Your task to perform on an android device: Go to battery settings Image 0: 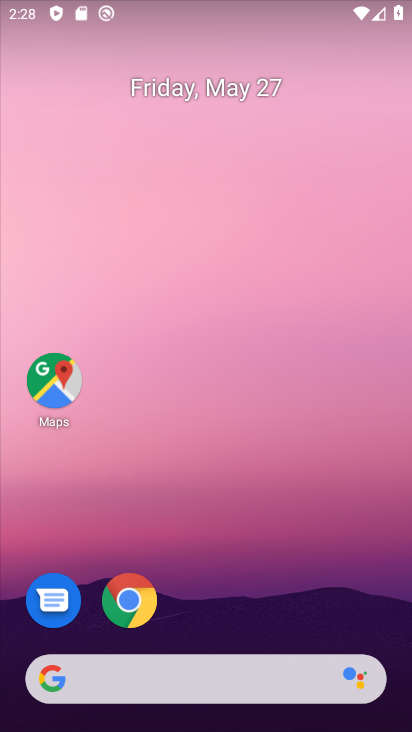
Step 0: drag from (198, 721) to (200, 126)
Your task to perform on an android device: Go to battery settings Image 1: 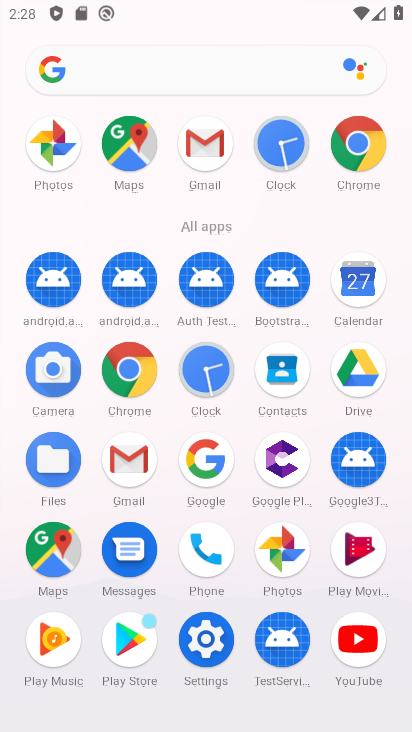
Step 1: click (207, 631)
Your task to perform on an android device: Go to battery settings Image 2: 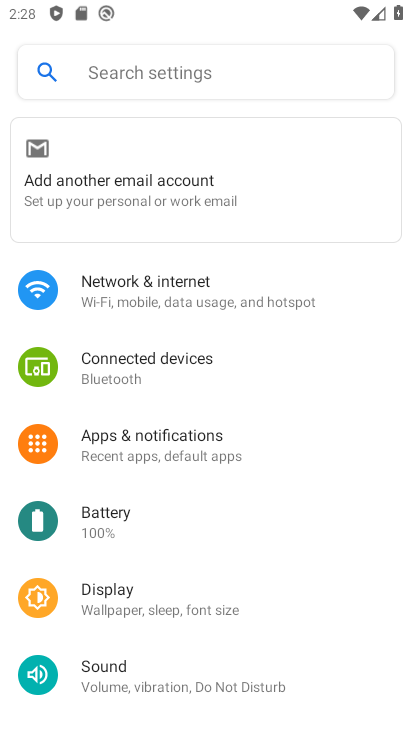
Step 2: click (112, 509)
Your task to perform on an android device: Go to battery settings Image 3: 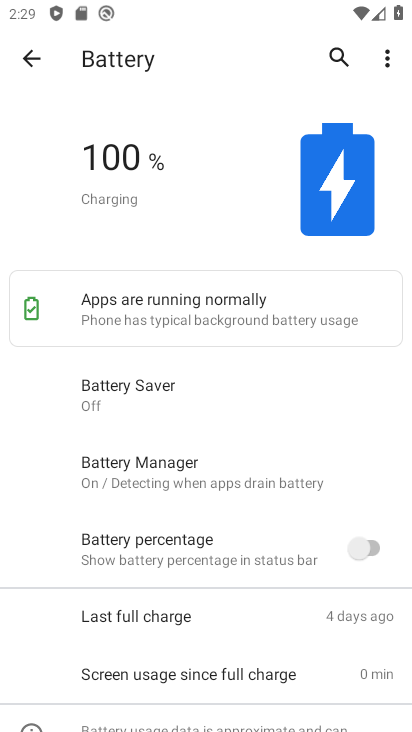
Step 3: task complete